Your task to perform on an android device: see creations saved in the google photos Image 0: 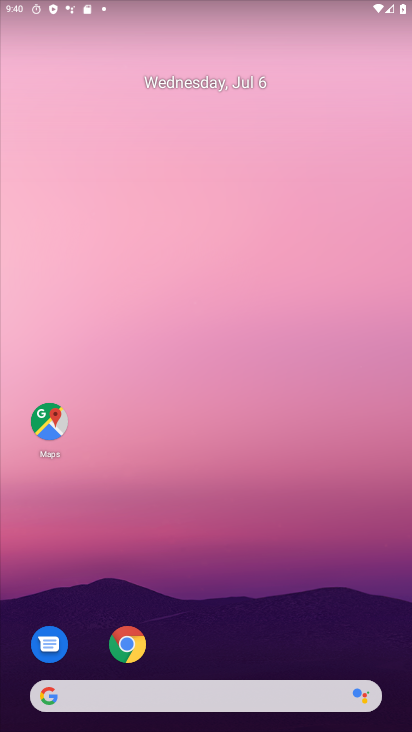
Step 0: drag from (281, 577) to (281, 237)
Your task to perform on an android device: see creations saved in the google photos Image 1: 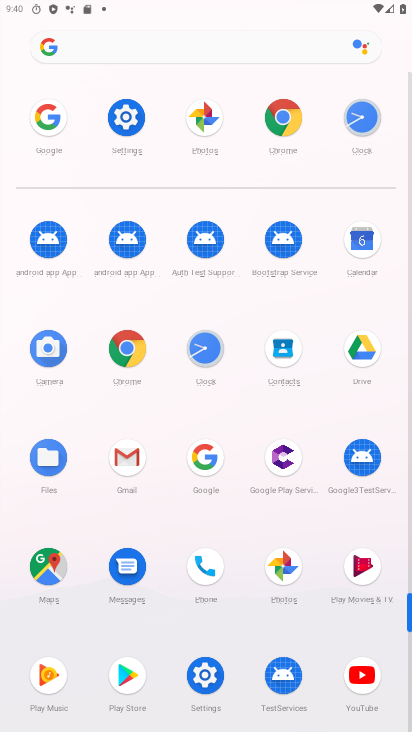
Step 1: click (271, 570)
Your task to perform on an android device: see creations saved in the google photos Image 2: 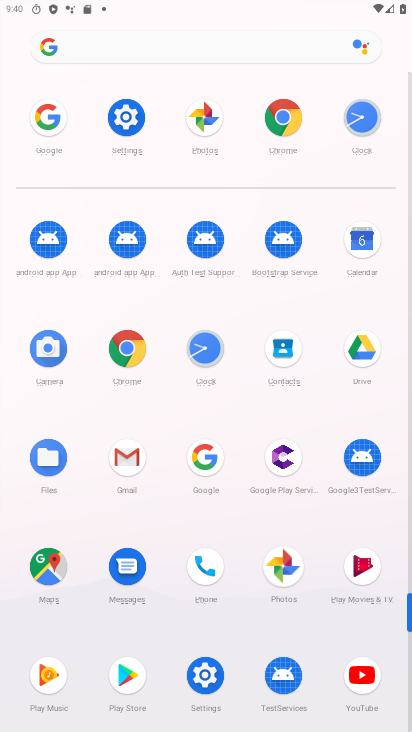
Step 2: click (284, 567)
Your task to perform on an android device: see creations saved in the google photos Image 3: 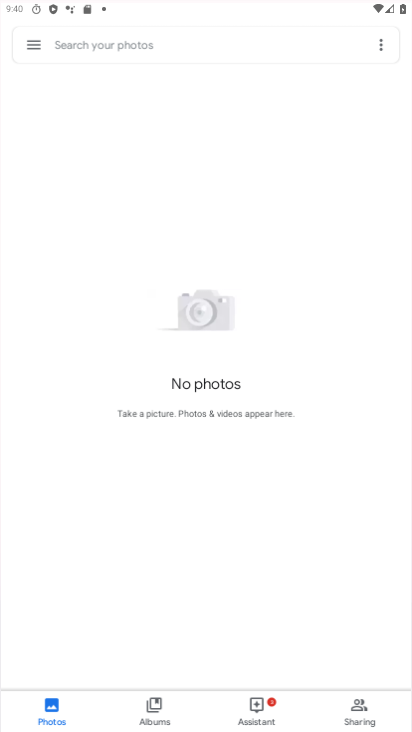
Step 3: click (291, 561)
Your task to perform on an android device: see creations saved in the google photos Image 4: 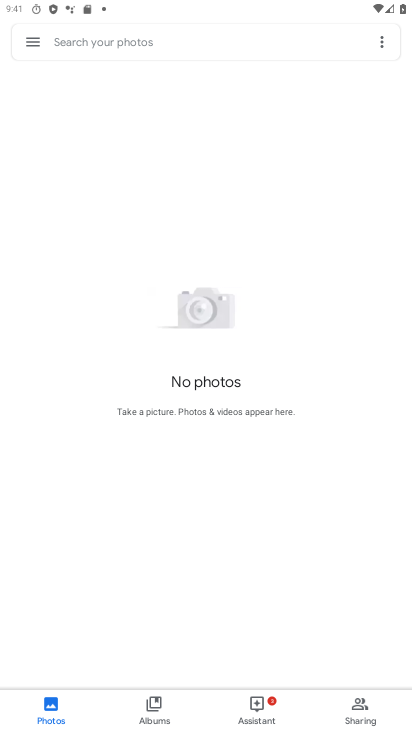
Step 4: task complete